Your task to perform on an android device: Show me the alarms in the clock app Image 0: 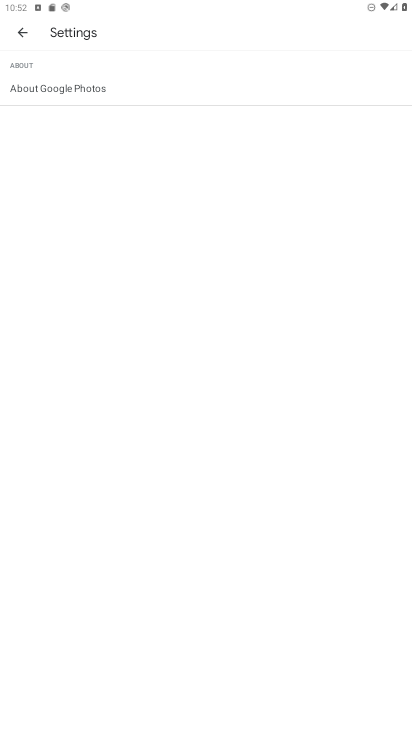
Step 0: press home button
Your task to perform on an android device: Show me the alarms in the clock app Image 1: 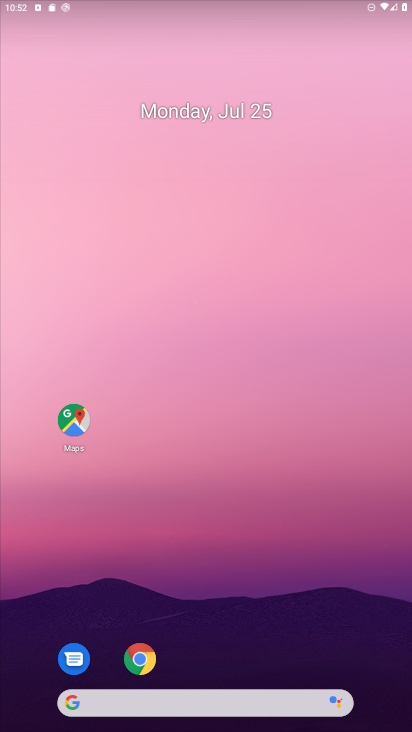
Step 1: drag from (203, 646) to (263, 289)
Your task to perform on an android device: Show me the alarms in the clock app Image 2: 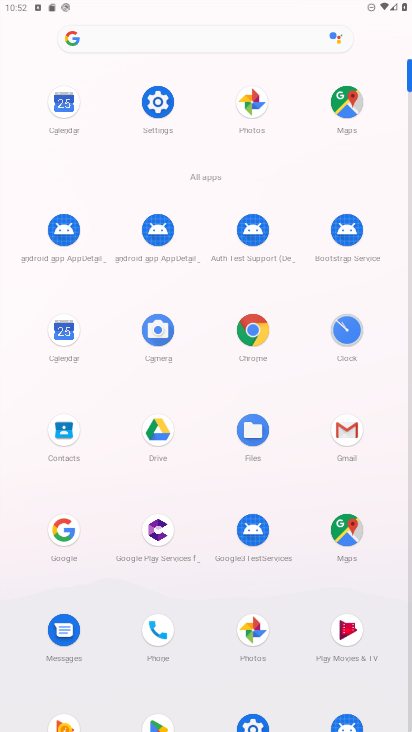
Step 2: click (330, 322)
Your task to perform on an android device: Show me the alarms in the clock app Image 3: 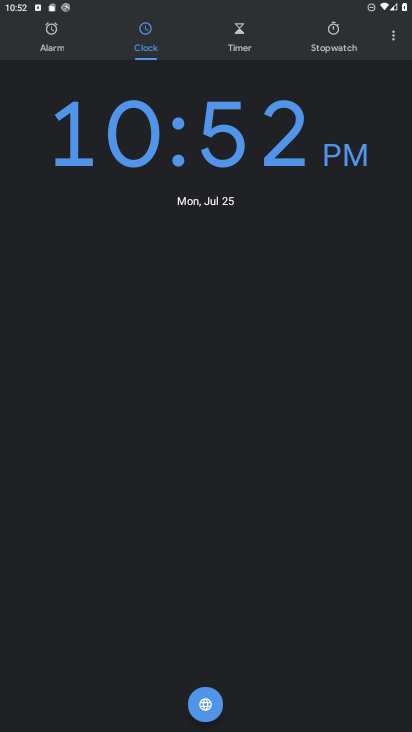
Step 3: click (43, 35)
Your task to perform on an android device: Show me the alarms in the clock app Image 4: 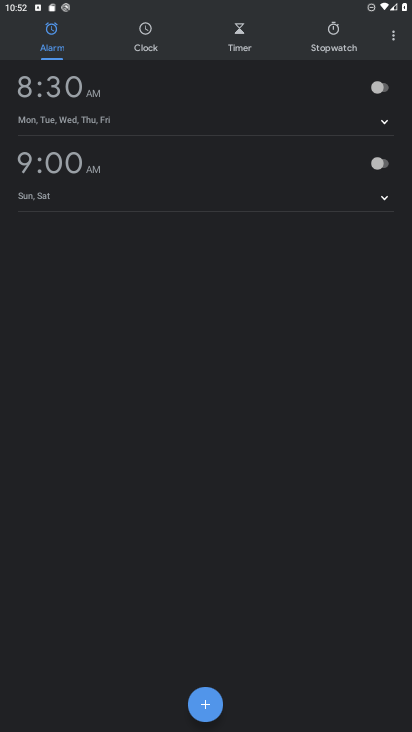
Step 4: task complete